Your task to perform on an android device: Go to internet settings Image 0: 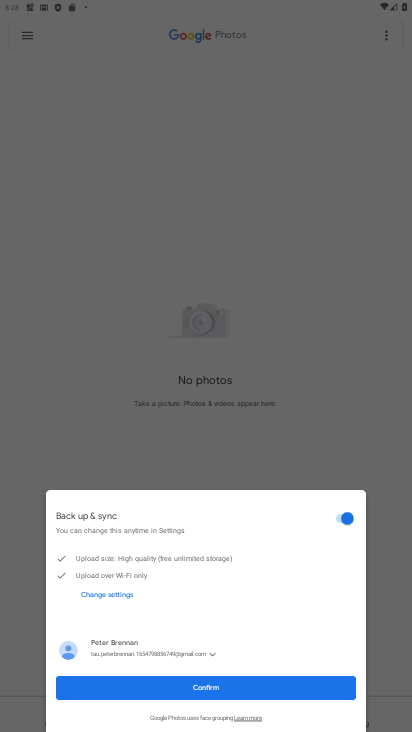
Step 0: press home button
Your task to perform on an android device: Go to internet settings Image 1: 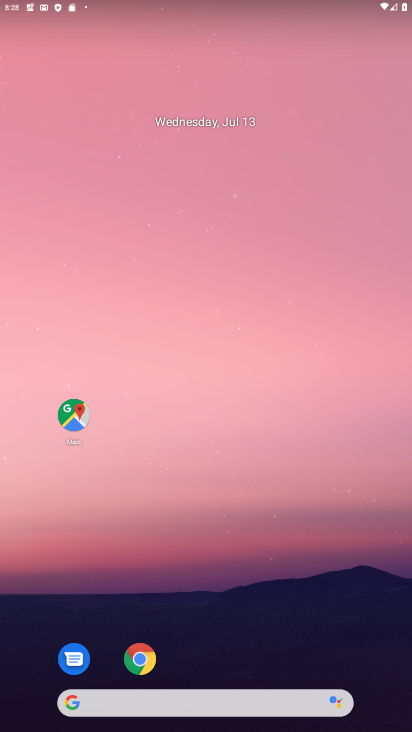
Step 1: drag from (27, 678) to (370, 3)
Your task to perform on an android device: Go to internet settings Image 2: 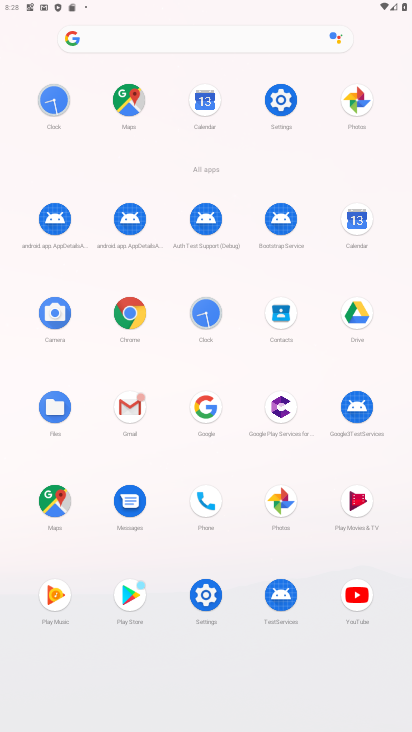
Step 2: click (198, 589)
Your task to perform on an android device: Go to internet settings Image 3: 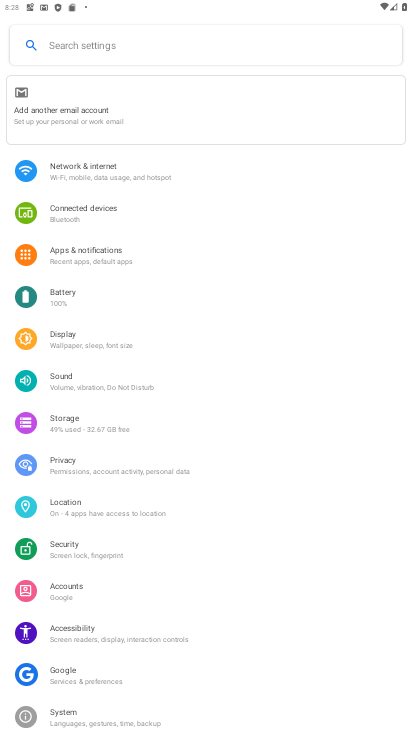
Step 3: click (100, 174)
Your task to perform on an android device: Go to internet settings Image 4: 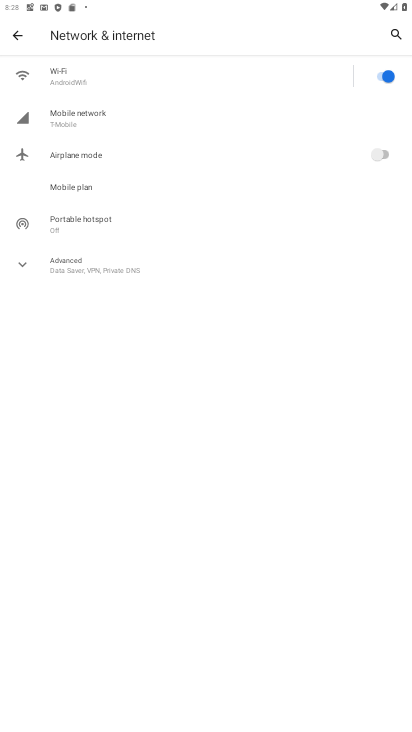
Step 4: task complete